Your task to perform on an android device: turn smart compose on in the gmail app Image 0: 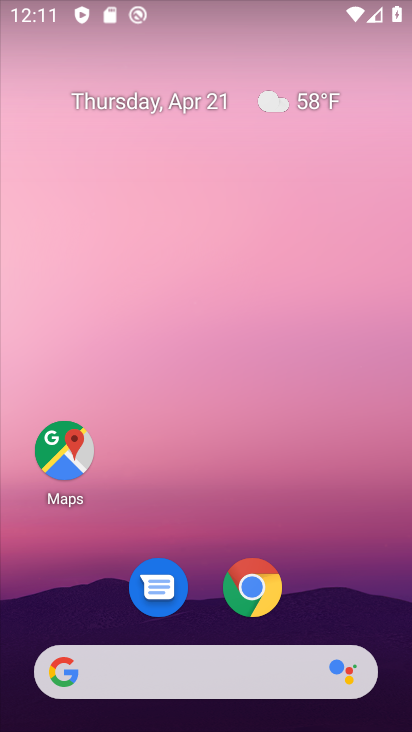
Step 0: drag from (205, 582) to (334, 4)
Your task to perform on an android device: turn smart compose on in the gmail app Image 1: 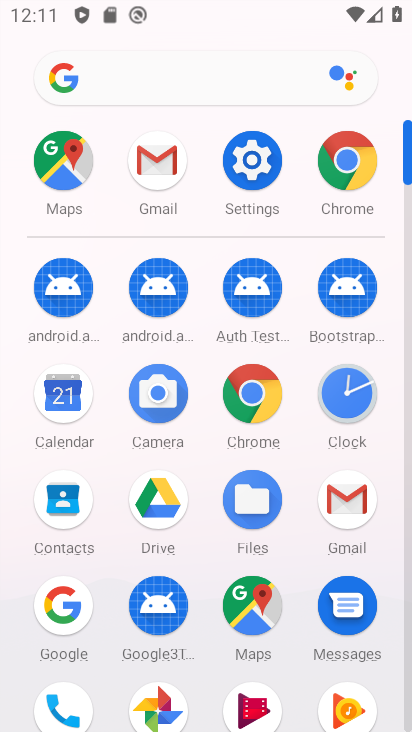
Step 1: click (353, 497)
Your task to perform on an android device: turn smart compose on in the gmail app Image 2: 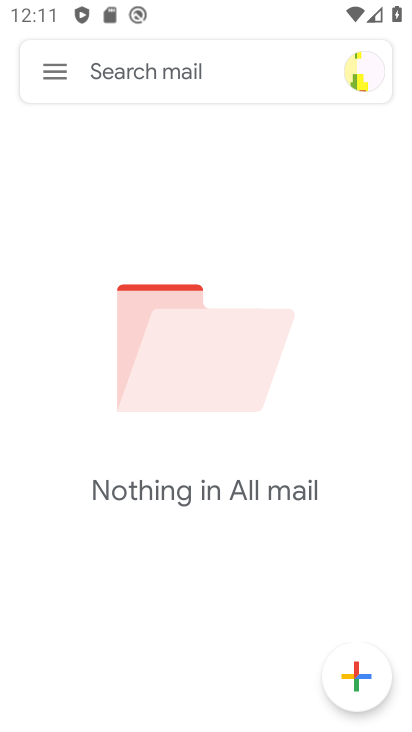
Step 2: click (56, 70)
Your task to perform on an android device: turn smart compose on in the gmail app Image 3: 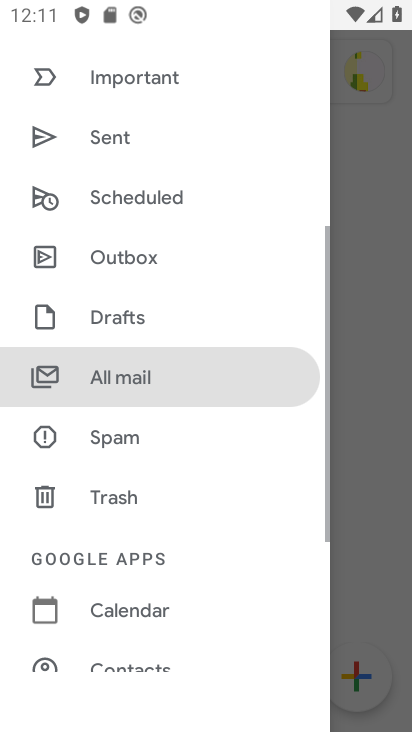
Step 3: drag from (127, 566) to (207, 173)
Your task to perform on an android device: turn smart compose on in the gmail app Image 4: 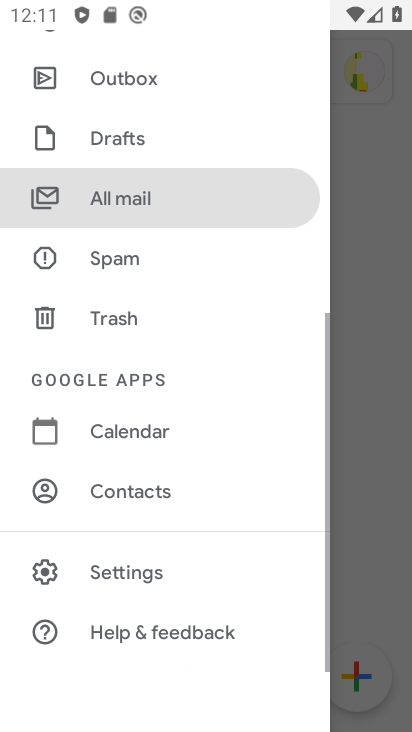
Step 4: click (111, 583)
Your task to perform on an android device: turn smart compose on in the gmail app Image 5: 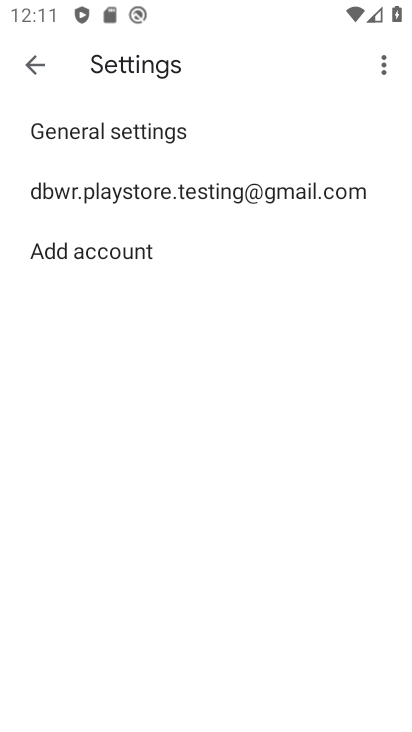
Step 5: click (141, 196)
Your task to perform on an android device: turn smart compose on in the gmail app Image 6: 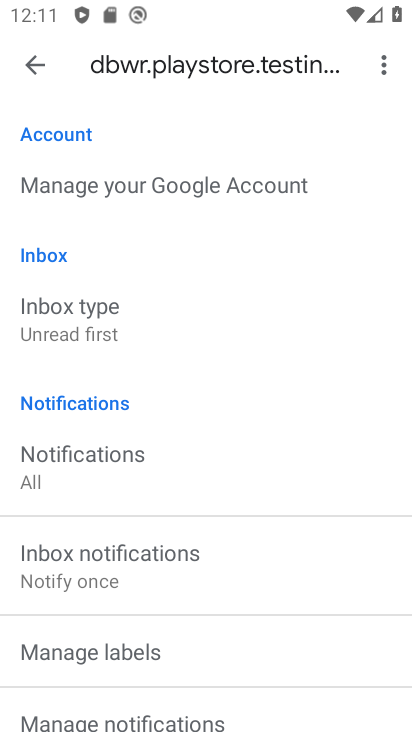
Step 6: task complete